Your task to perform on an android device: Open sound settings Image 0: 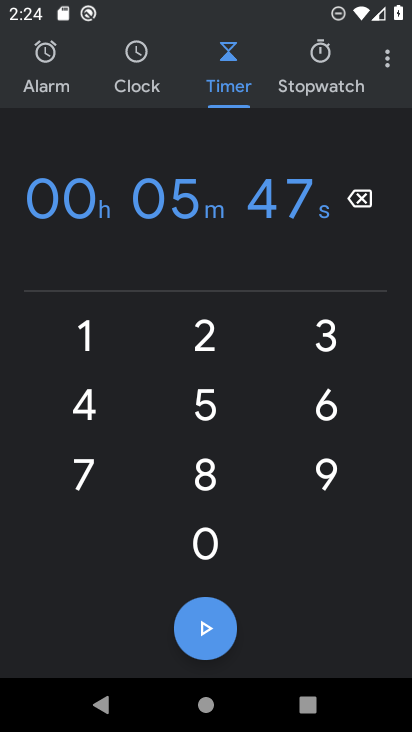
Step 0: press home button
Your task to perform on an android device: Open sound settings Image 1: 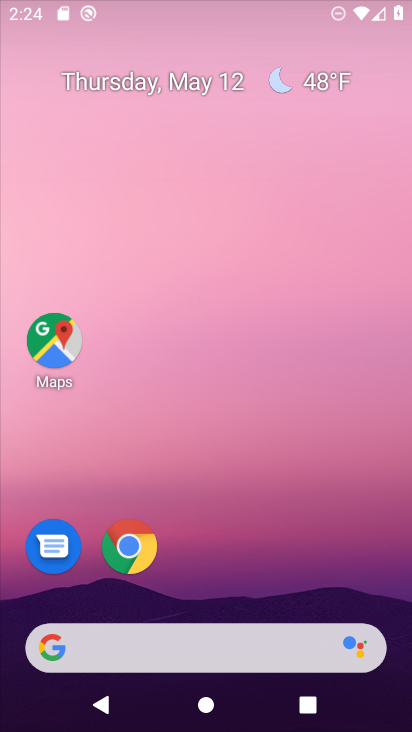
Step 1: drag from (252, 682) to (271, 247)
Your task to perform on an android device: Open sound settings Image 2: 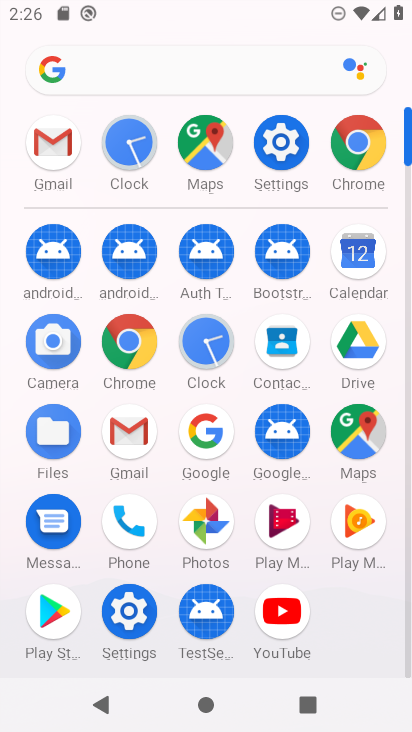
Step 2: click (280, 146)
Your task to perform on an android device: Open sound settings Image 3: 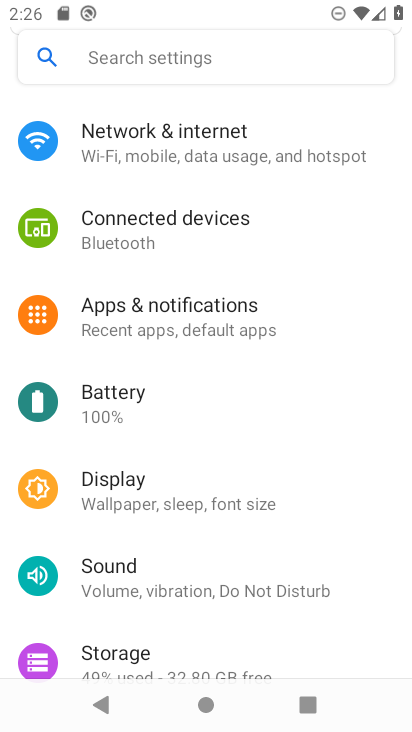
Step 3: click (166, 575)
Your task to perform on an android device: Open sound settings Image 4: 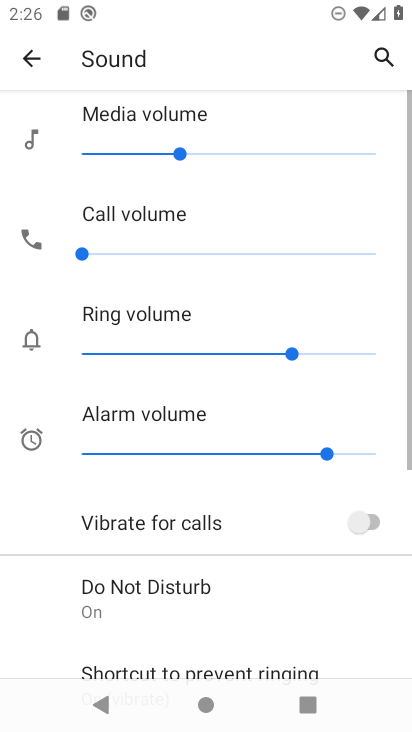
Step 4: task complete